Your task to perform on an android device: Open wifi settings Image 0: 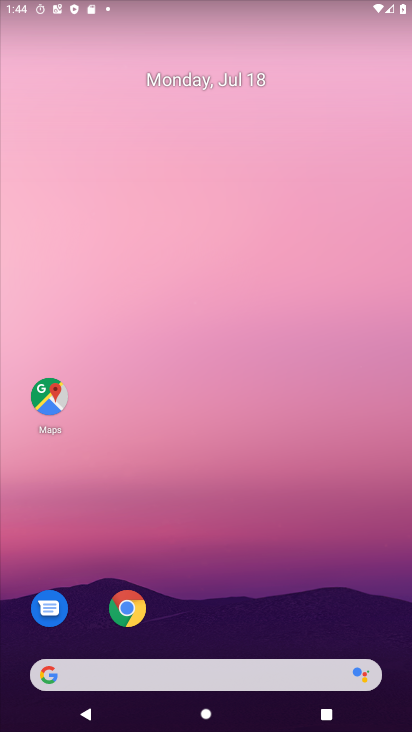
Step 0: drag from (236, 726) to (236, 85)
Your task to perform on an android device: Open wifi settings Image 1: 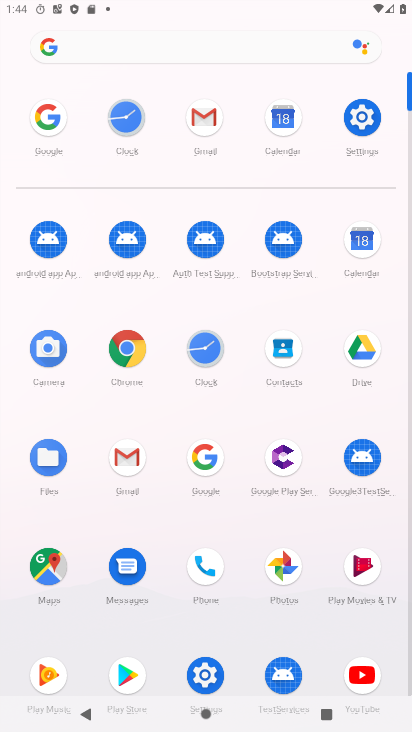
Step 1: click (359, 112)
Your task to perform on an android device: Open wifi settings Image 2: 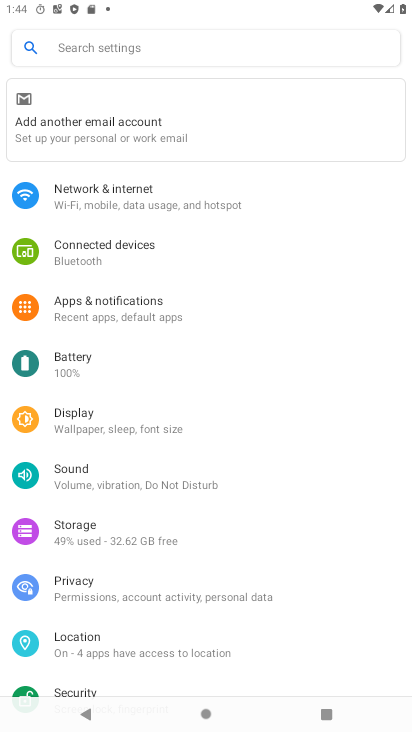
Step 2: click (66, 202)
Your task to perform on an android device: Open wifi settings Image 3: 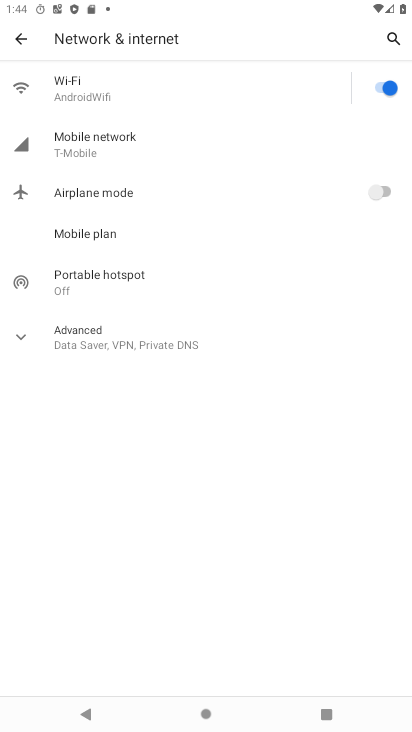
Step 3: click (93, 96)
Your task to perform on an android device: Open wifi settings Image 4: 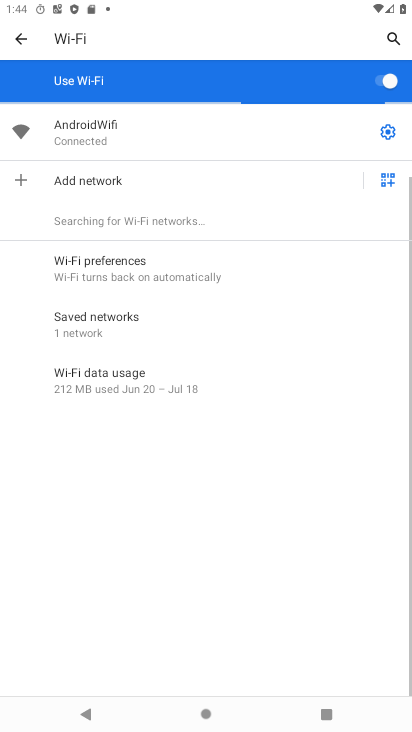
Step 4: task complete